Your task to perform on an android device: open app "Google Docs" (install if not already installed) Image 0: 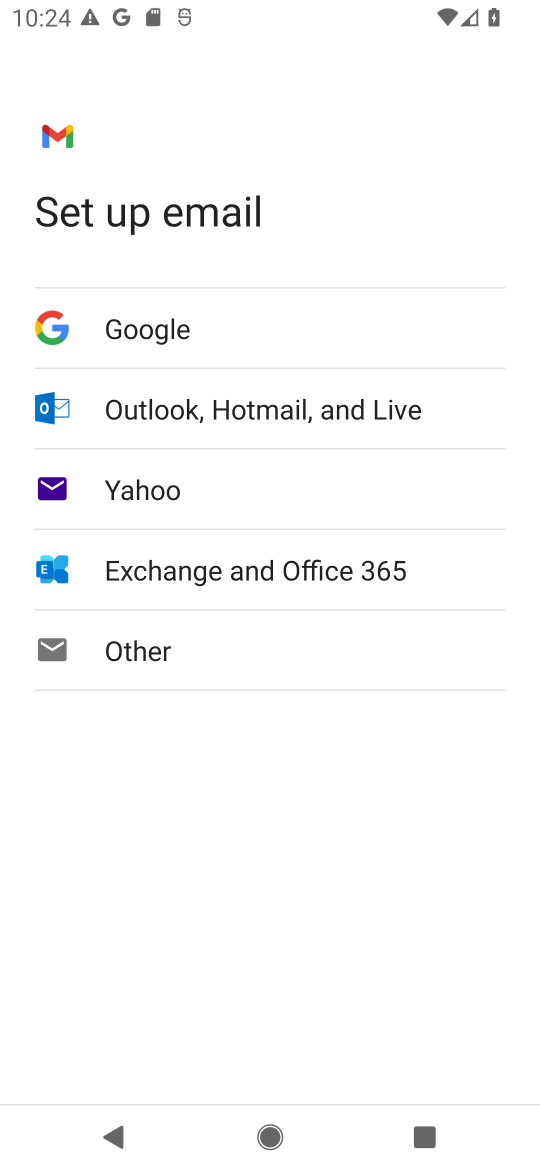
Step 0: press home button
Your task to perform on an android device: open app "Google Docs" (install if not already installed) Image 1: 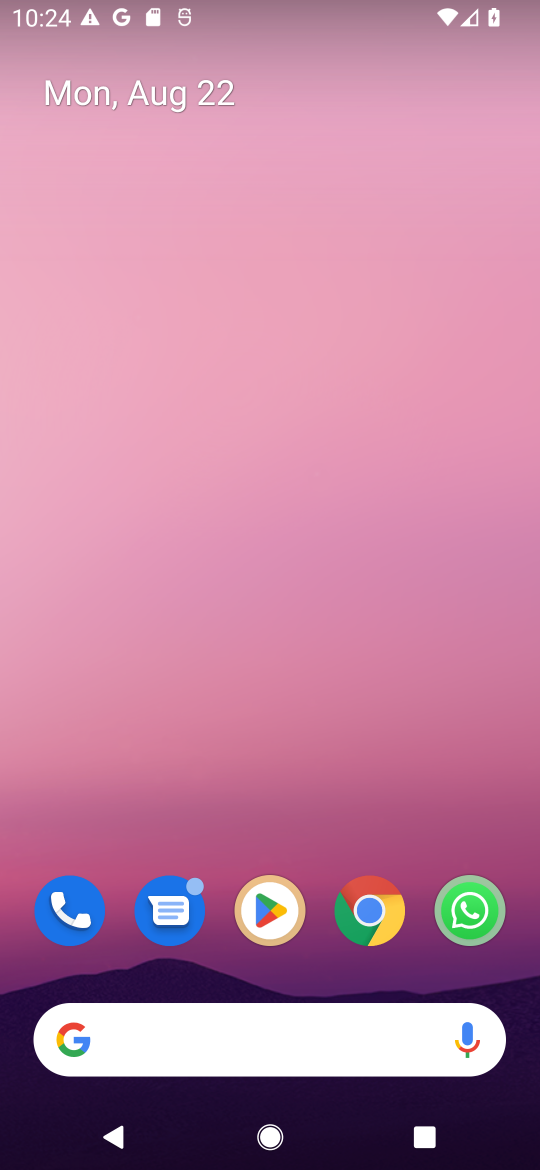
Step 1: click (277, 901)
Your task to perform on an android device: open app "Google Docs" (install if not already installed) Image 2: 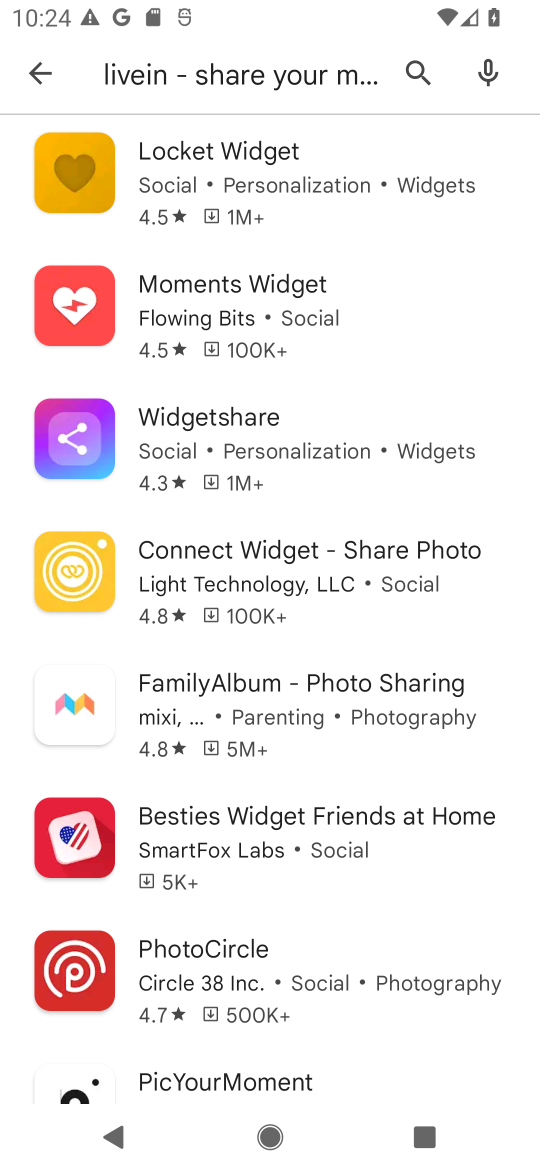
Step 2: click (428, 71)
Your task to perform on an android device: open app "Google Docs" (install if not already installed) Image 3: 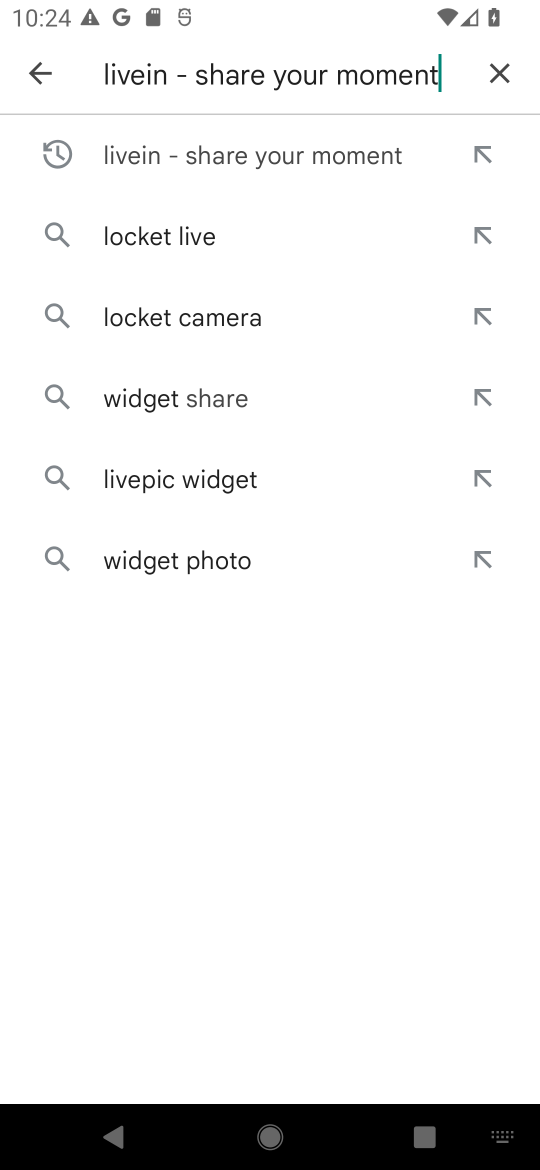
Step 3: click (487, 69)
Your task to perform on an android device: open app "Google Docs" (install if not already installed) Image 4: 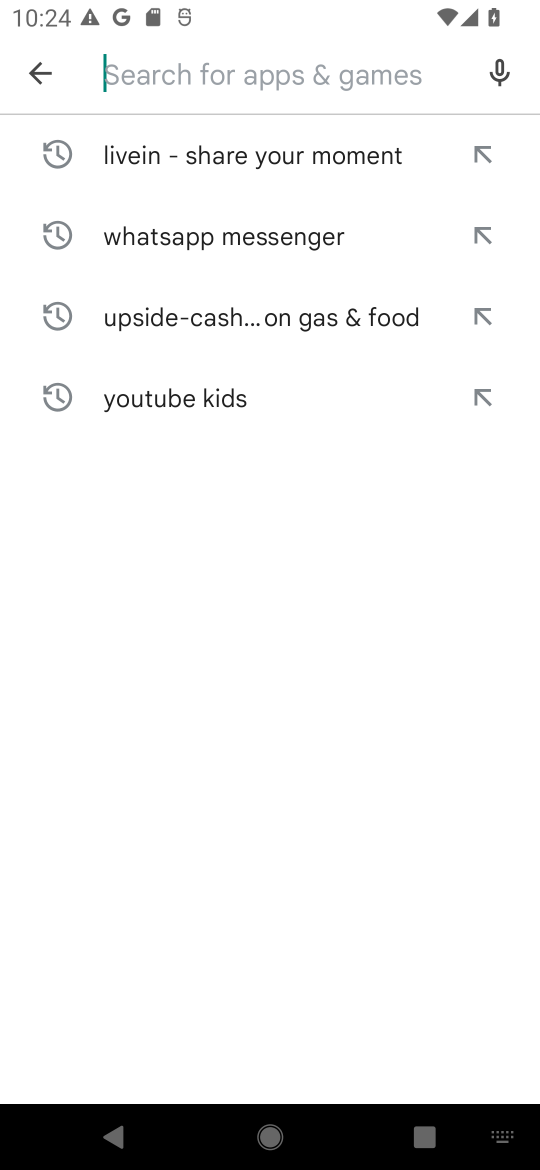
Step 4: type "Google Docs"
Your task to perform on an android device: open app "Google Docs" (install if not already installed) Image 5: 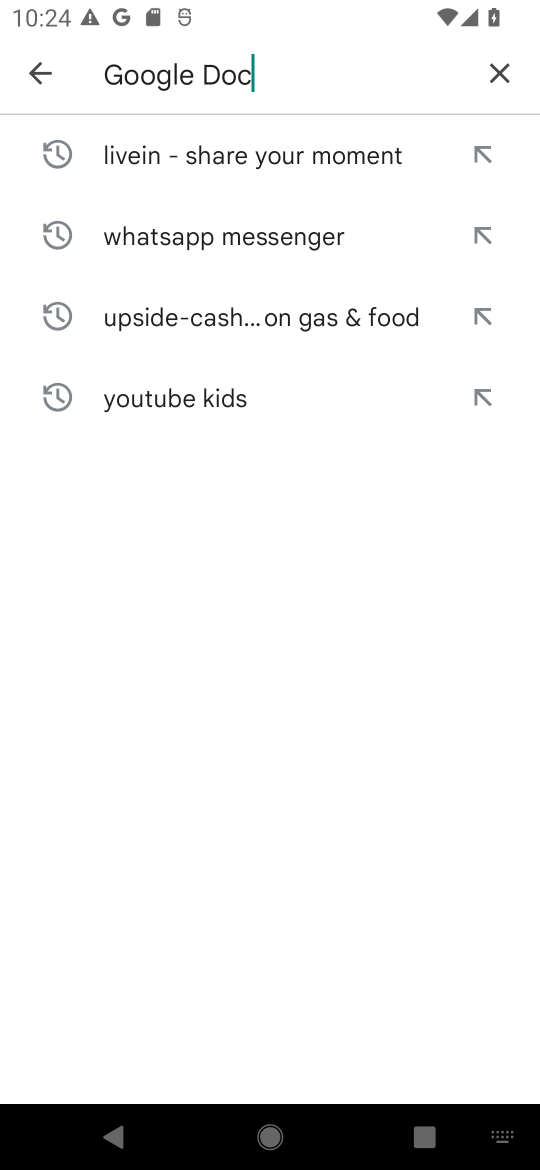
Step 5: type ""
Your task to perform on an android device: open app "Google Docs" (install if not already installed) Image 6: 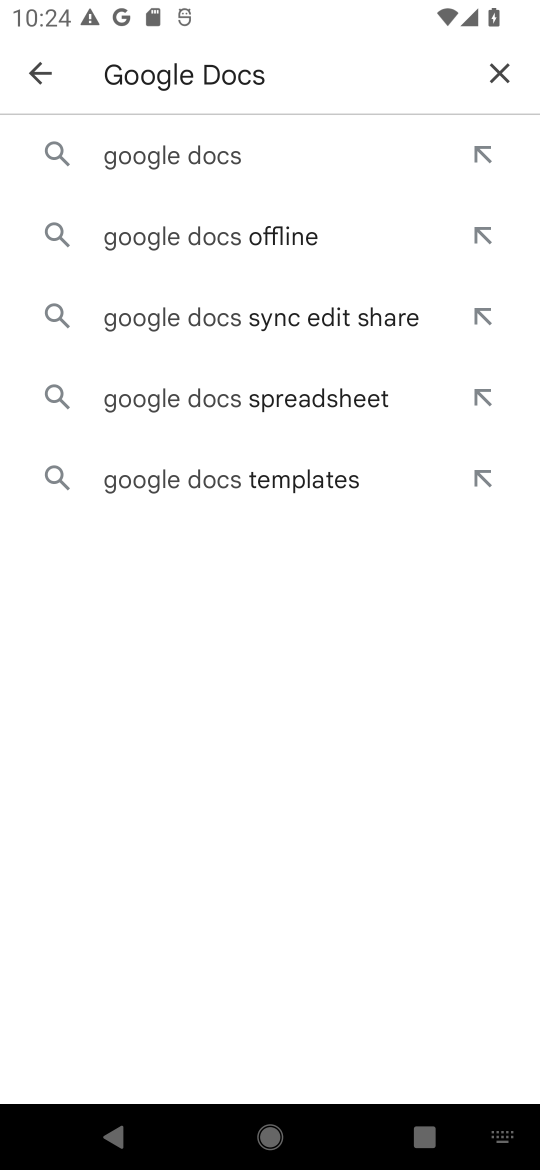
Step 6: click (230, 150)
Your task to perform on an android device: open app "Google Docs" (install if not already installed) Image 7: 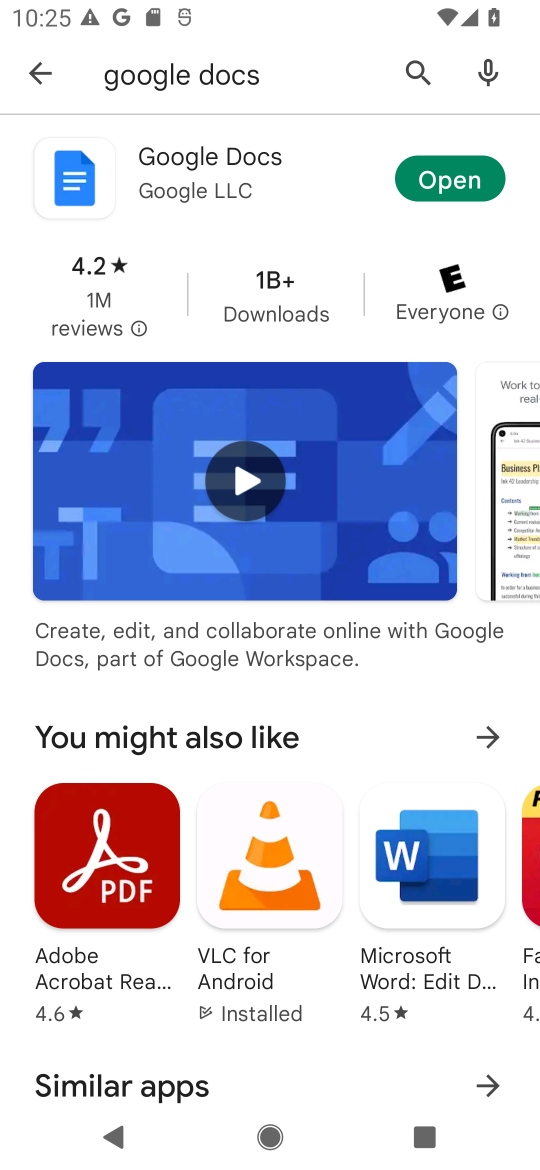
Step 7: click (450, 183)
Your task to perform on an android device: open app "Google Docs" (install if not already installed) Image 8: 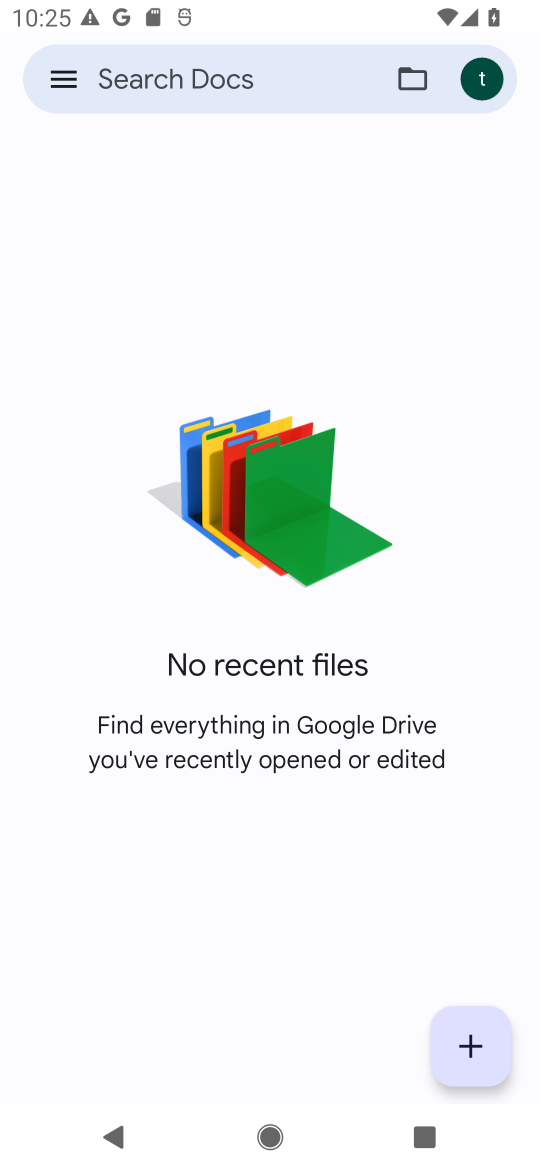
Step 8: task complete